Your task to perform on an android device: set default search engine in the chrome app Image 0: 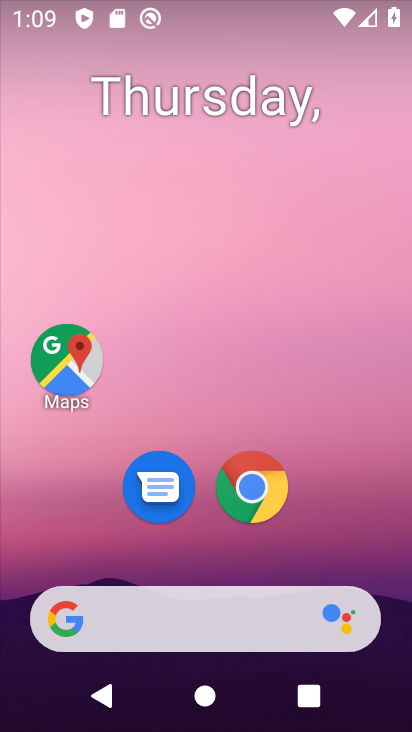
Step 0: click (261, 484)
Your task to perform on an android device: set default search engine in the chrome app Image 1: 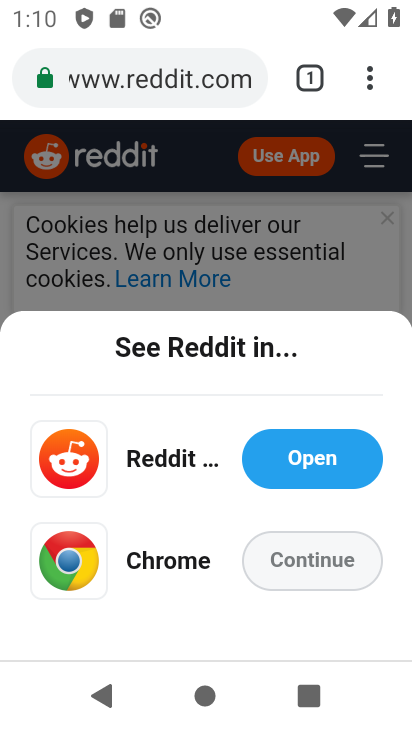
Step 1: click (380, 76)
Your task to perform on an android device: set default search engine in the chrome app Image 2: 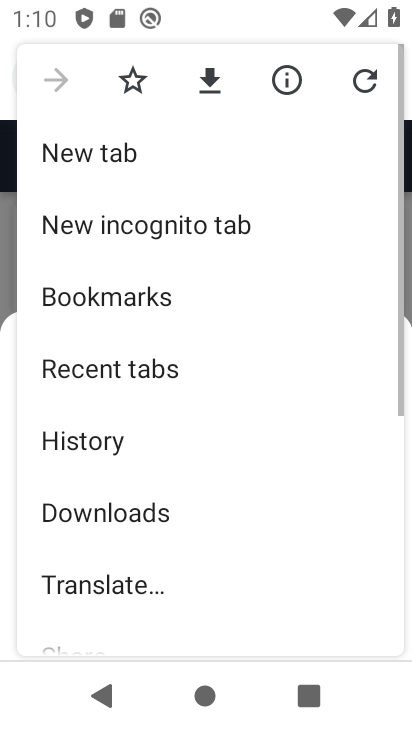
Step 2: drag from (212, 503) to (145, 131)
Your task to perform on an android device: set default search engine in the chrome app Image 3: 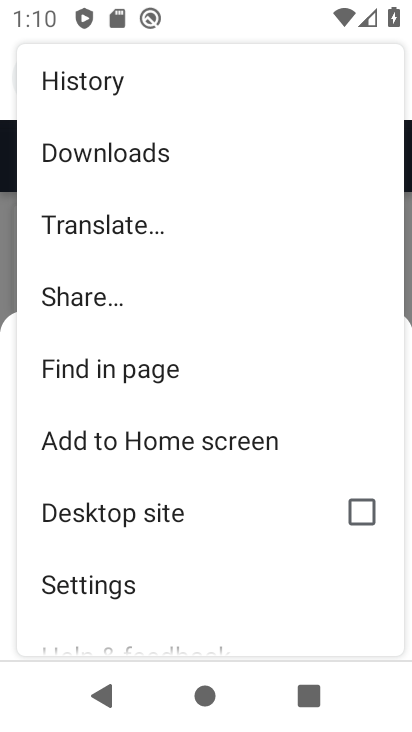
Step 3: click (200, 586)
Your task to perform on an android device: set default search engine in the chrome app Image 4: 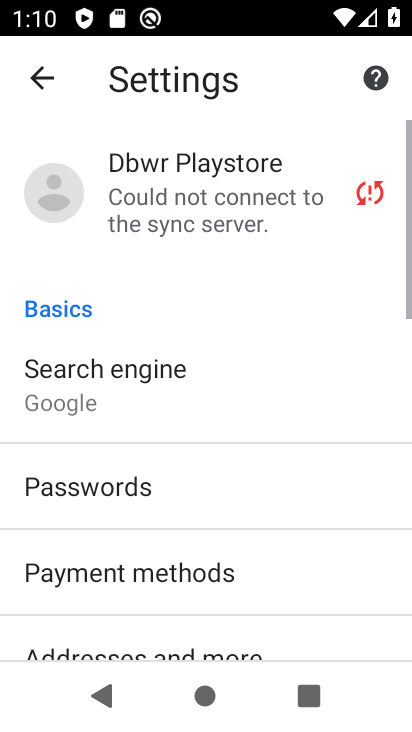
Step 4: click (181, 398)
Your task to perform on an android device: set default search engine in the chrome app Image 5: 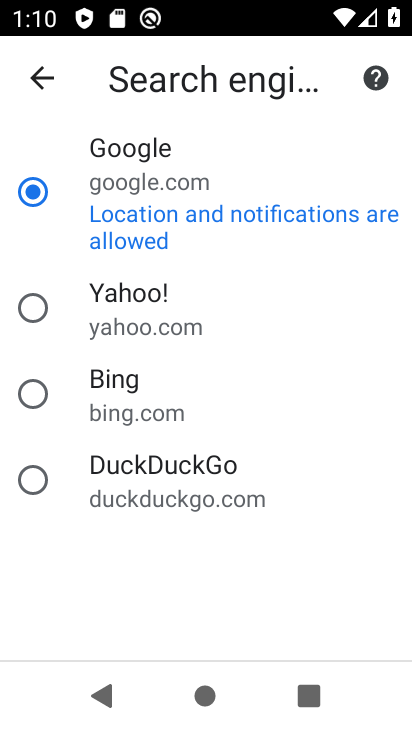
Step 5: task complete